Your task to perform on an android device: Go to internet settings Image 0: 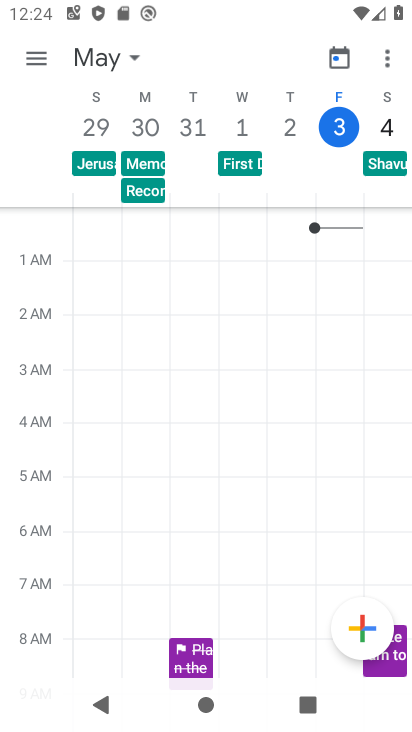
Step 0: press home button
Your task to perform on an android device: Go to internet settings Image 1: 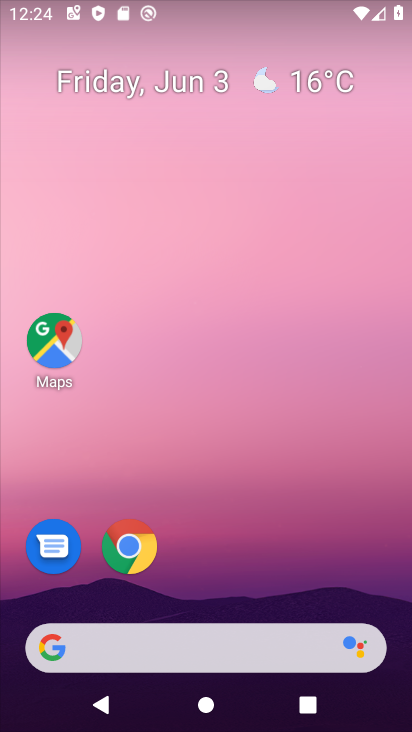
Step 1: drag from (263, 503) to (144, 70)
Your task to perform on an android device: Go to internet settings Image 2: 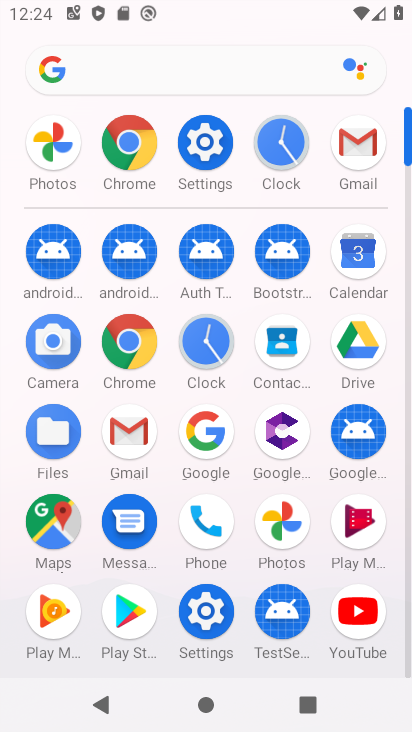
Step 2: click (206, 140)
Your task to perform on an android device: Go to internet settings Image 3: 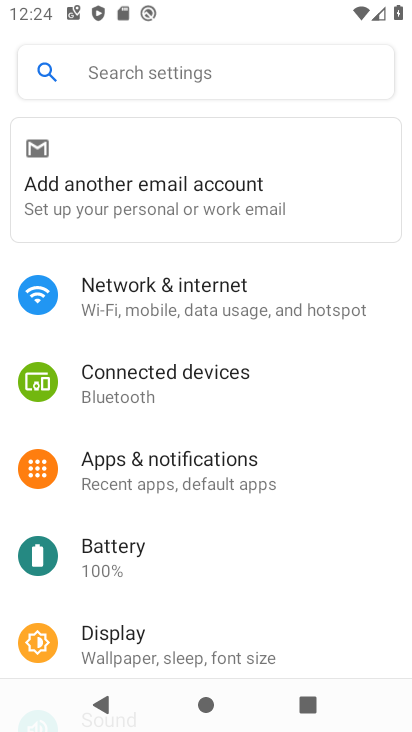
Step 3: click (170, 302)
Your task to perform on an android device: Go to internet settings Image 4: 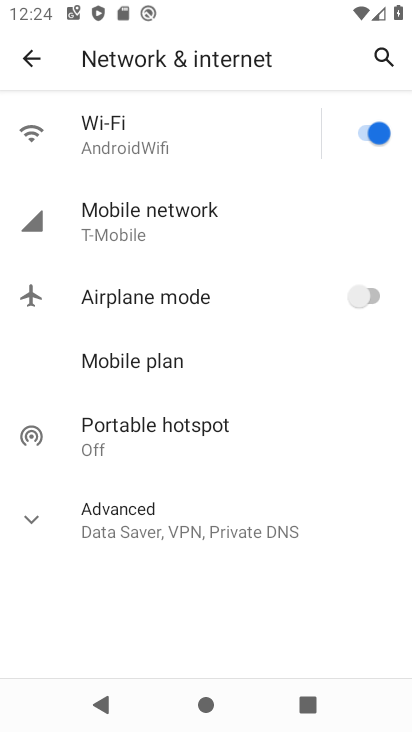
Step 4: click (154, 213)
Your task to perform on an android device: Go to internet settings Image 5: 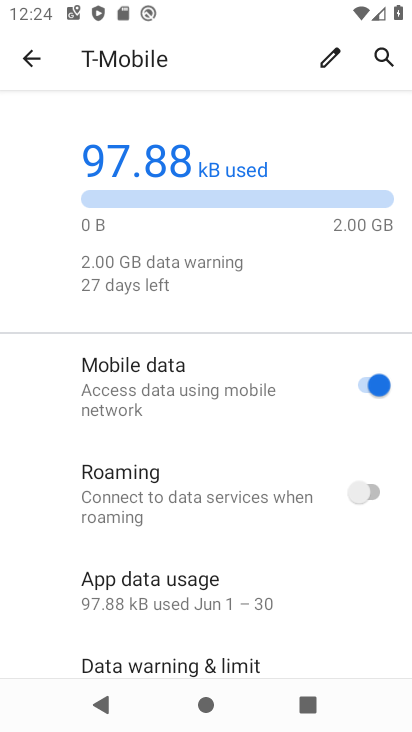
Step 5: task complete